Your task to perform on an android device: Go to eBay Image 0: 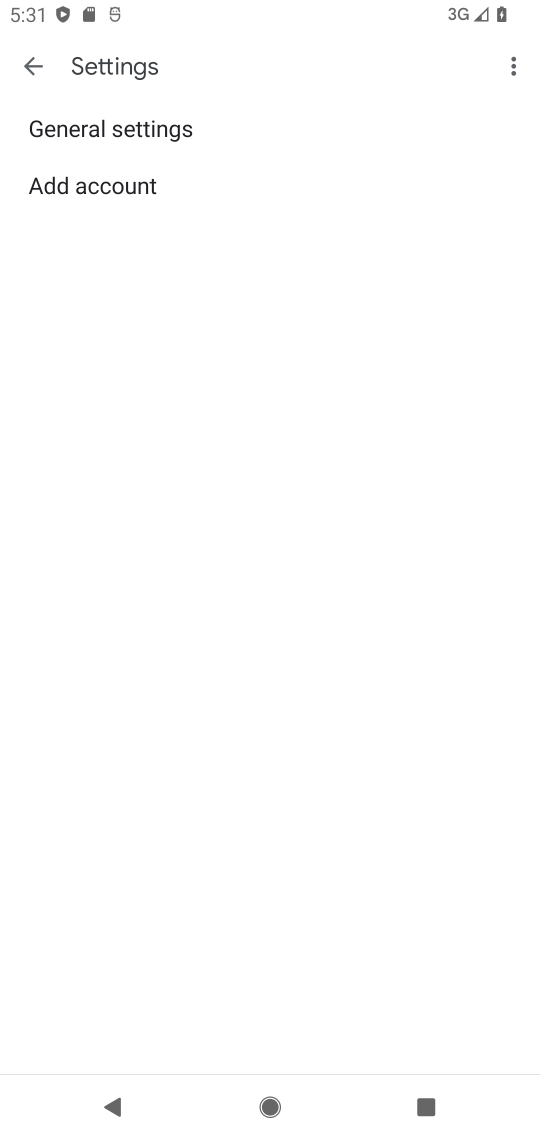
Step 0: press home button
Your task to perform on an android device: Go to eBay Image 1: 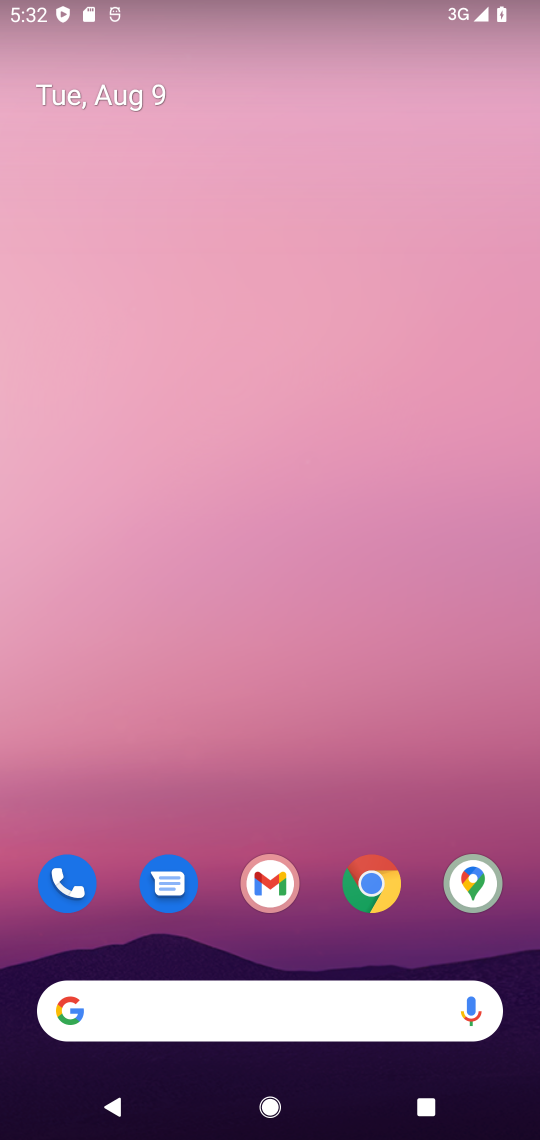
Step 1: click (372, 898)
Your task to perform on an android device: Go to eBay Image 2: 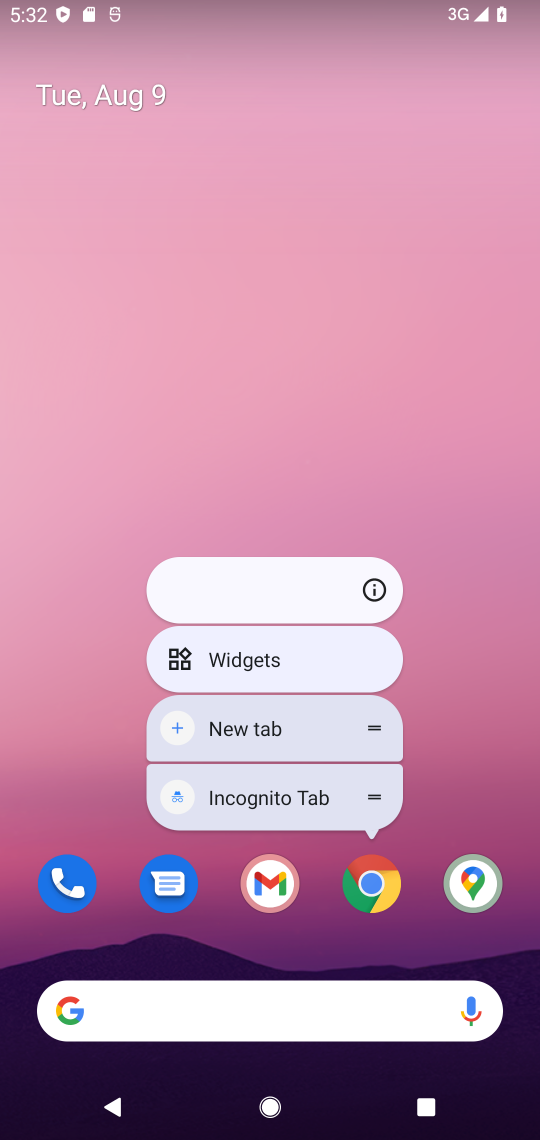
Step 2: click (367, 856)
Your task to perform on an android device: Go to eBay Image 3: 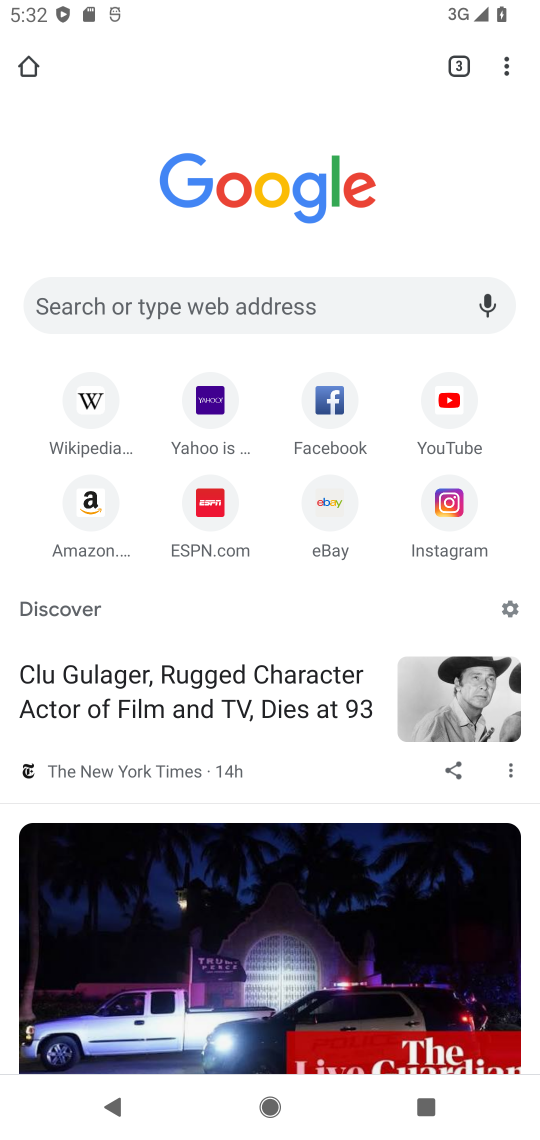
Step 3: click (299, 526)
Your task to perform on an android device: Go to eBay Image 4: 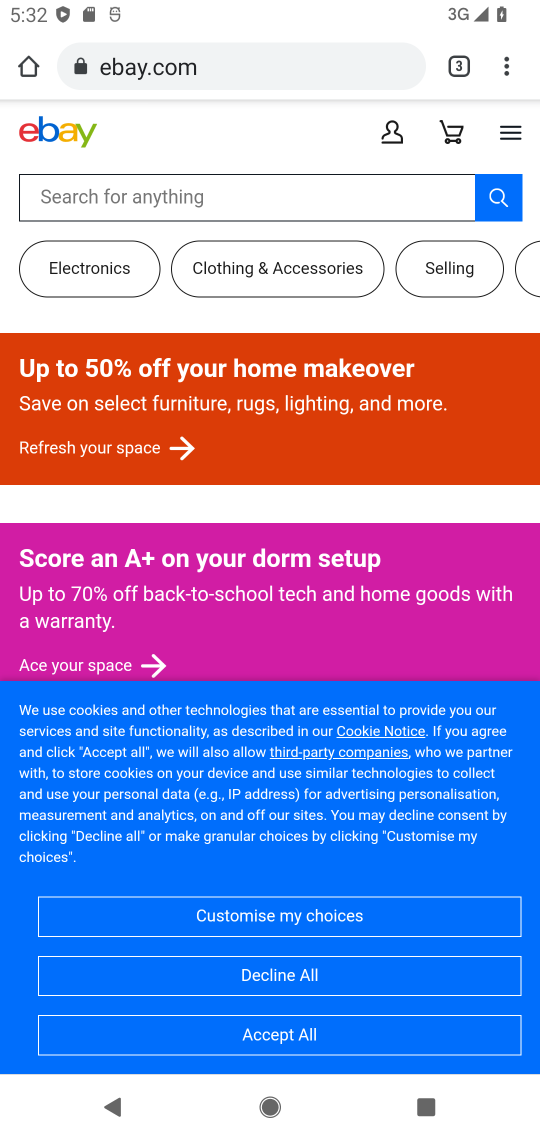
Step 4: task complete